Your task to perform on an android device: empty trash in the gmail app Image 0: 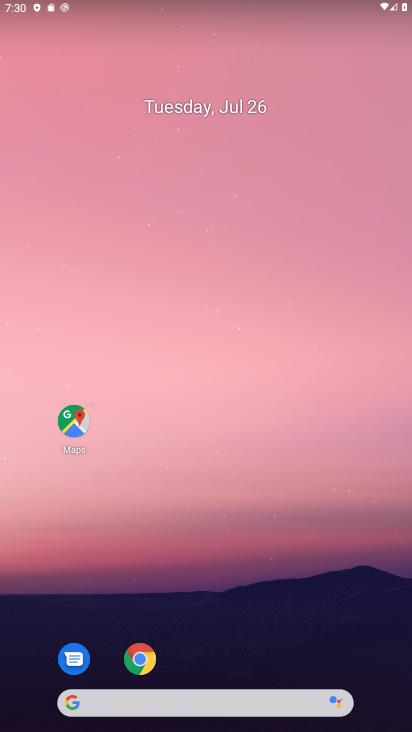
Step 0: drag from (211, 664) to (281, 0)
Your task to perform on an android device: empty trash in the gmail app Image 1: 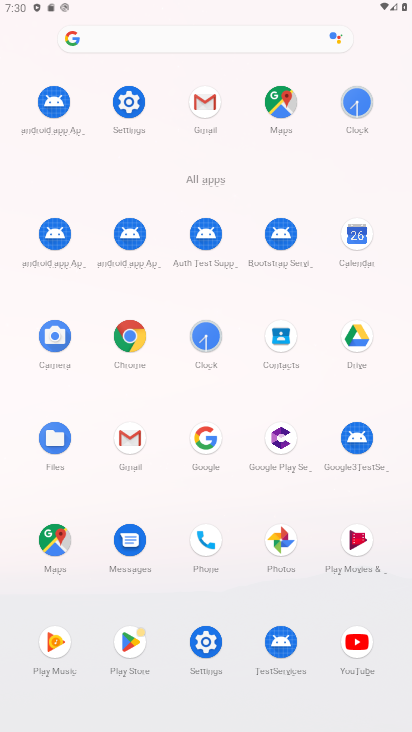
Step 1: click (122, 437)
Your task to perform on an android device: empty trash in the gmail app Image 2: 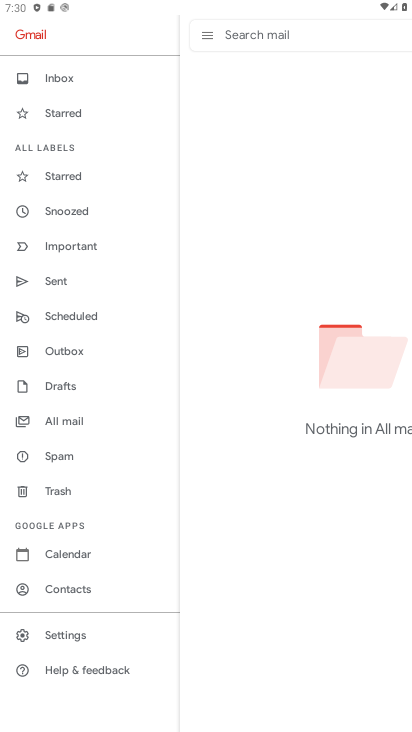
Step 2: click (45, 491)
Your task to perform on an android device: empty trash in the gmail app Image 3: 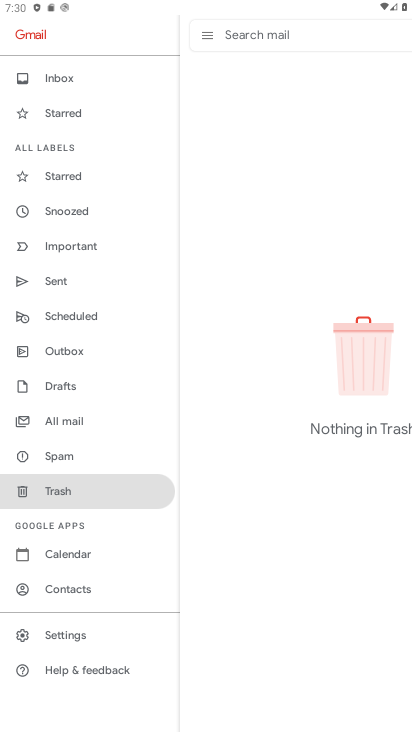
Step 3: task complete